Your task to perform on an android device: When is my next meeting? Image 0: 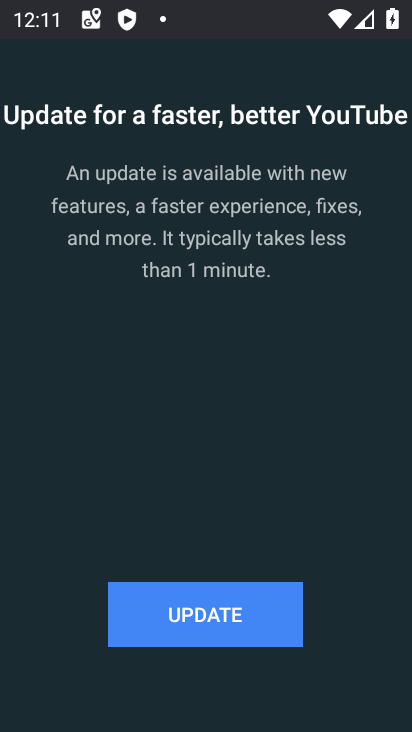
Step 0: press home button
Your task to perform on an android device: When is my next meeting? Image 1: 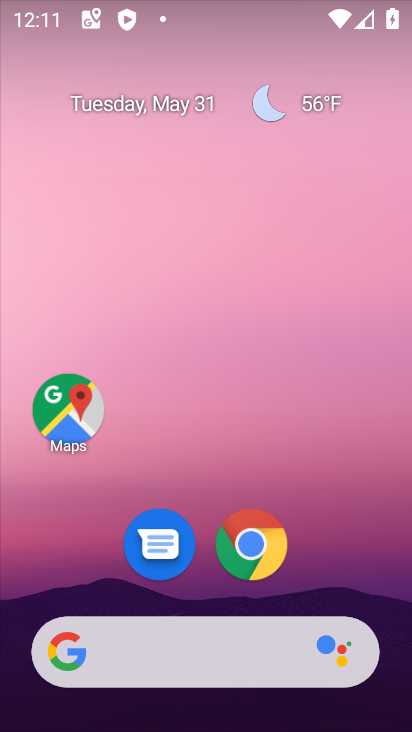
Step 1: drag from (308, 486) to (238, 138)
Your task to perform on an android device: When is my next meeting? Image 2: 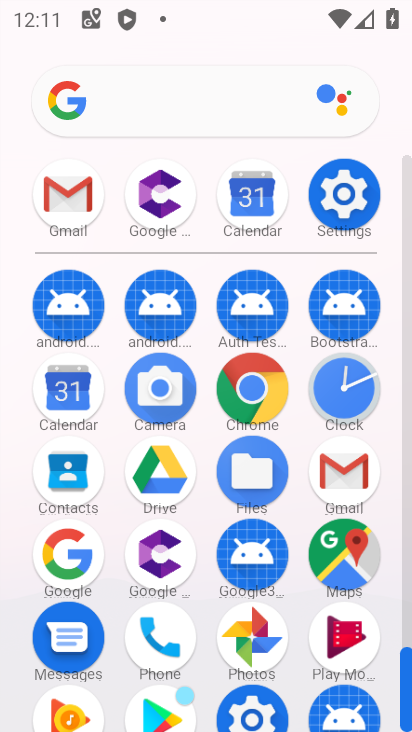
Step 2: click (69, 404)
Your task to perform on an android device: When is my next meeting? Image 3: 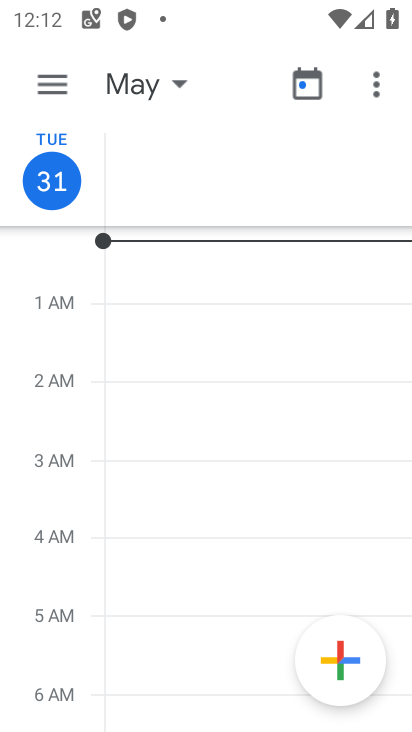
Step 3: click (174, 85)
Your task to perform on an android device: When is my next meeting? Image 4: 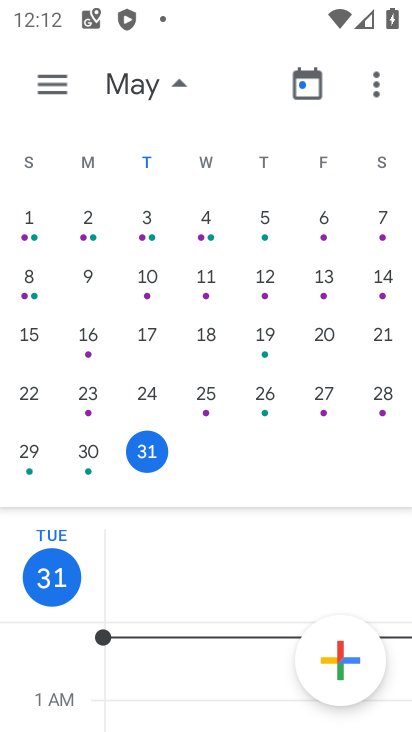
Step 4: click (83, 454)
Your task to perform on an android device: When is my next meeting? Image 5: 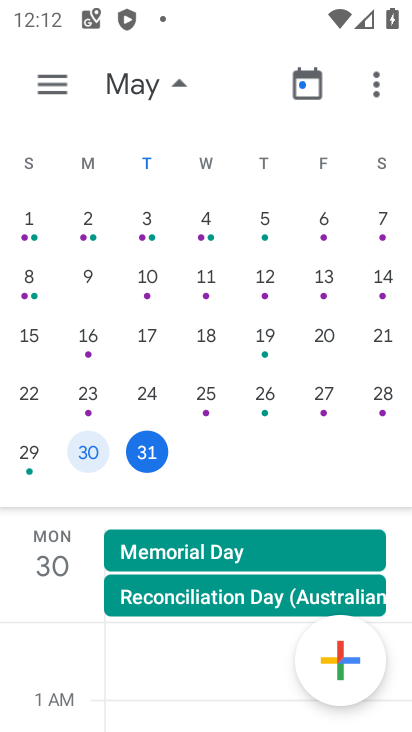
Step 5: task complete